Your task to perform on an android device: Go to internet settings Image 0: 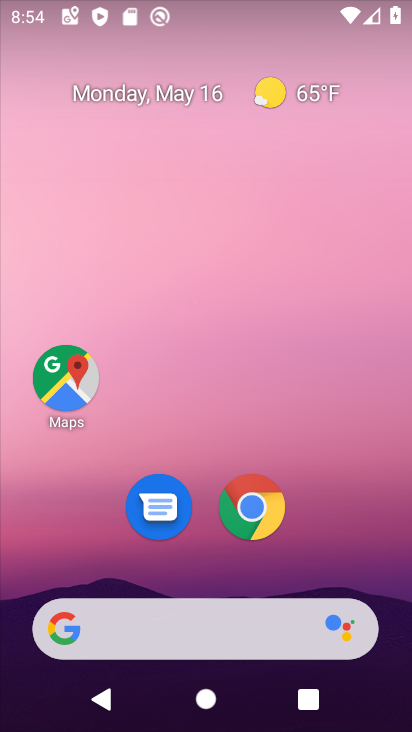
Step 0: drag from (195, 584) to (214, 4)
Your task to perform on an android device: Go to internet settings Image 1: 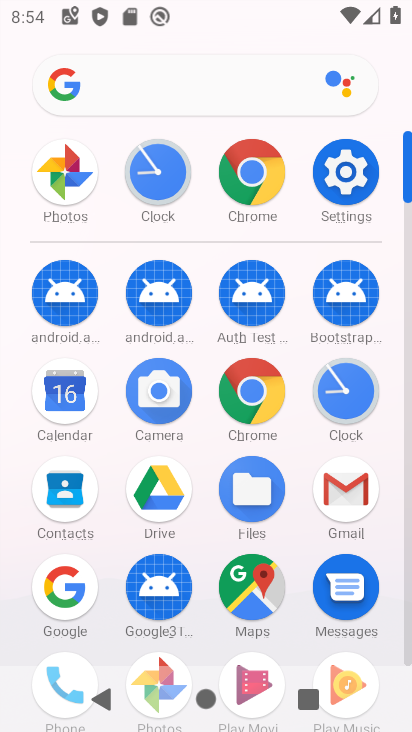
Step 1: click (326, 189)
Your task to perform on an android device: Go to internet settings Image 2: 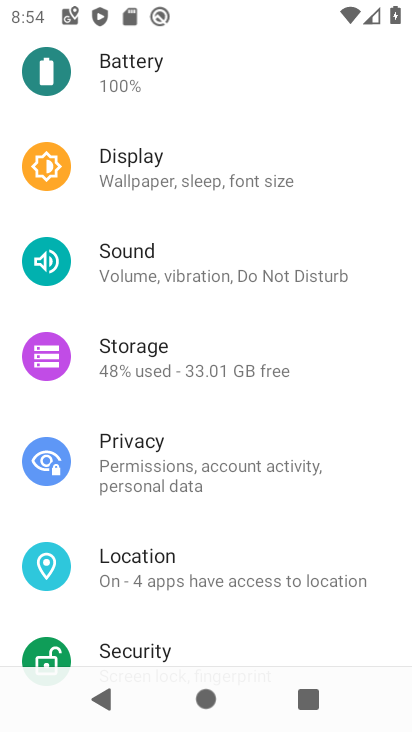
Step 2: drag from (172, 213) to (216, 603)
Your task to perform on an android device: Go to internet settings Image 3: 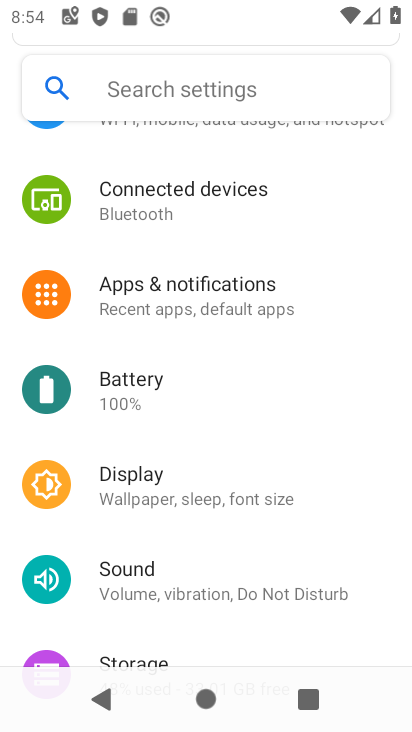
Step 3: drag from (210, 216) to (220, 529)
Your task to perform on an android device: Go to internet settings Image 4: 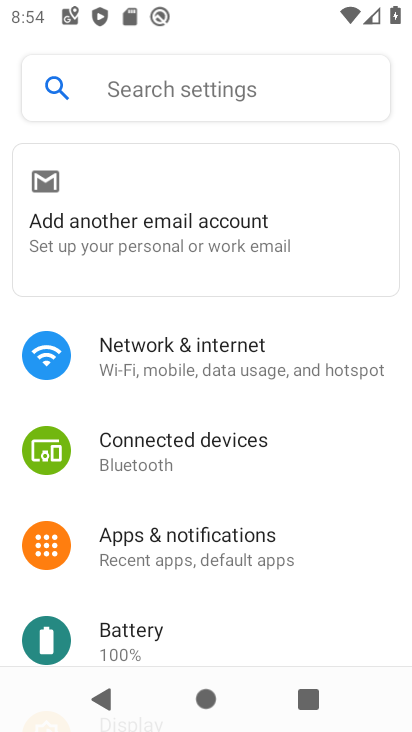
Step 4: click (196, 347)
Your task to perform on an android device: Go to internet settings Image 5: 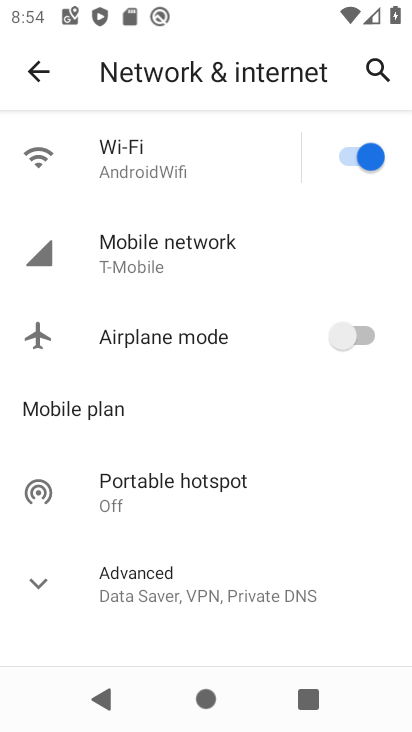
Step 5: click (210, 250)
Your task to perform on an android device: Go to internet settings Image 6: 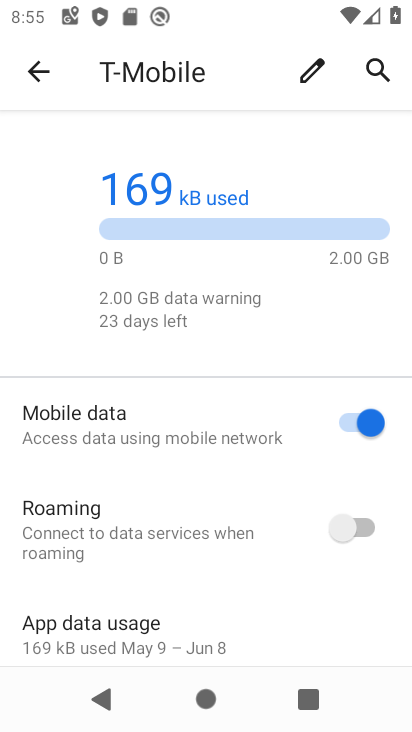
Step 6: task complete